Your task to perform on an android device: What is the news today? Image 0: 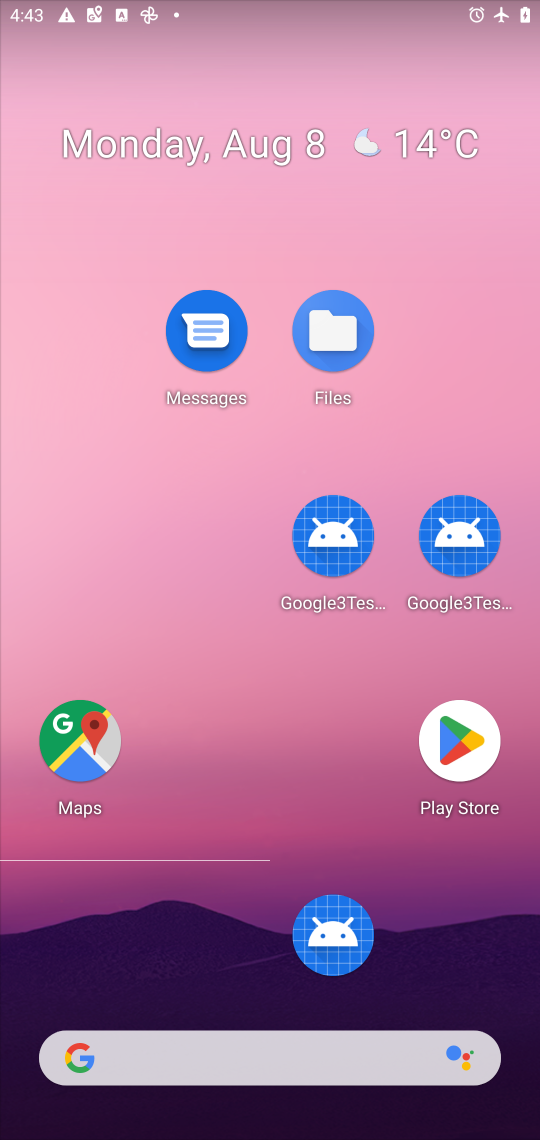
Step 0: drag from (348, 1065) to (250, 332)
Your task to perform on an android device: What is the news today? Image 1: 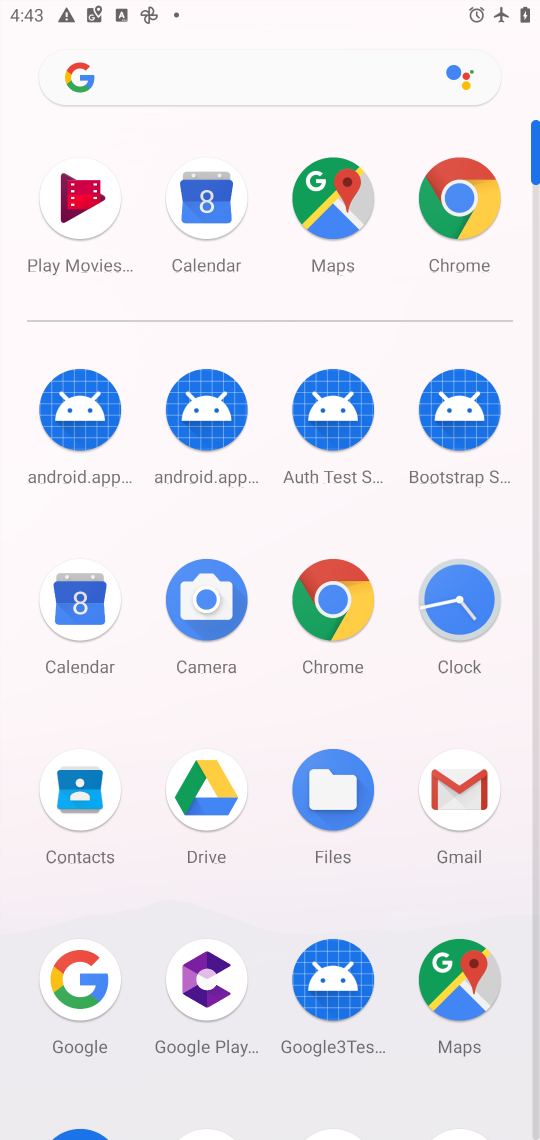
Step 1: click (84, 995)
Your task to perform on an android device: What is the news today? Image 2: 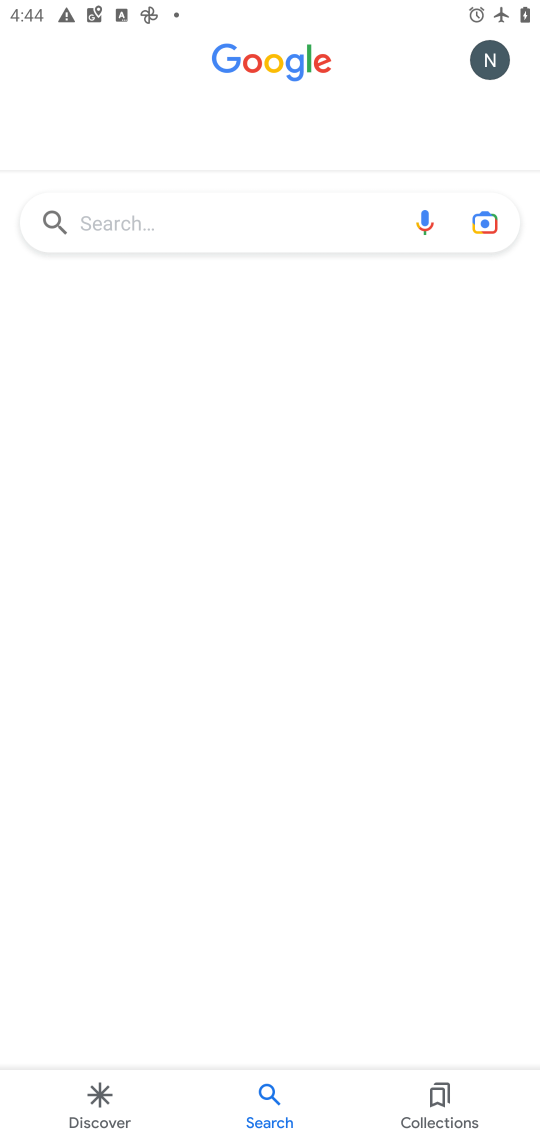
Step 2: click (321, 208)
Your task to perform on an android device: What is the news today? Image 3: 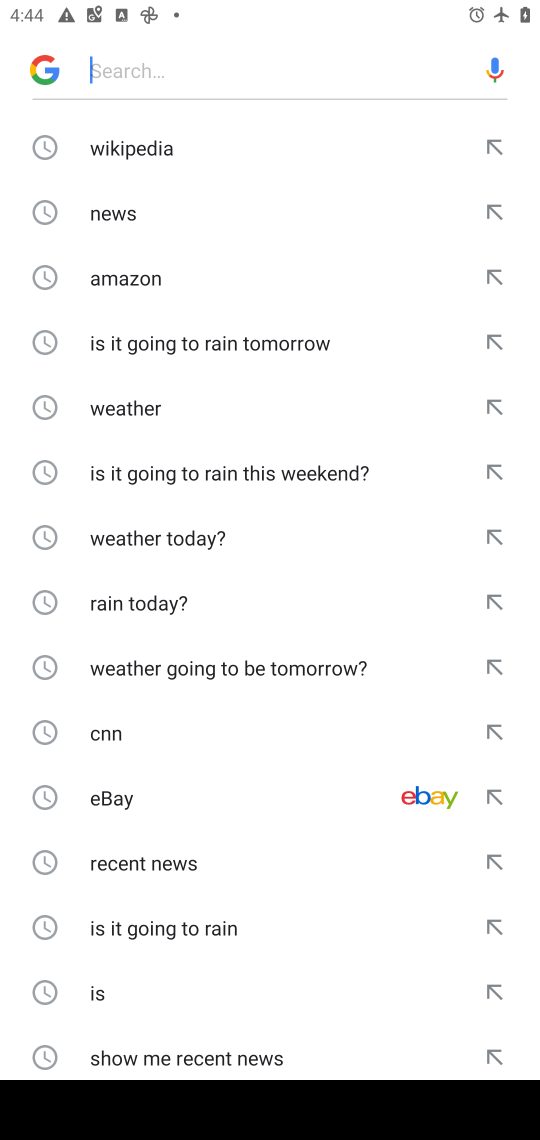
Step 3: type "whats the news today"
Your task to perform on an android device: What is the news today? Image 4: 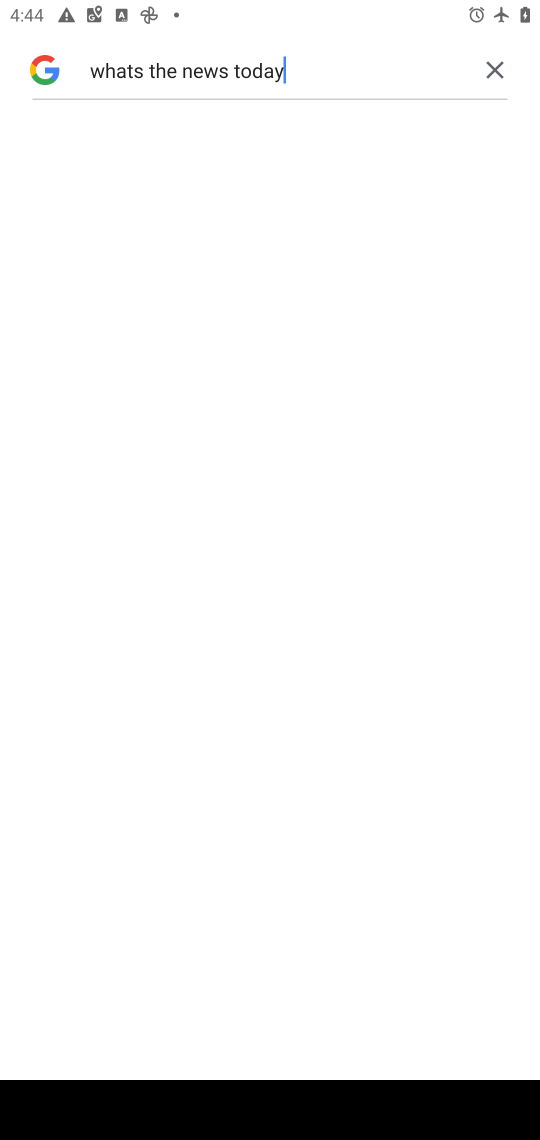
Step 4: task complete